Your task to perform on an android device: Show me popular games on the Play Store Image 0: 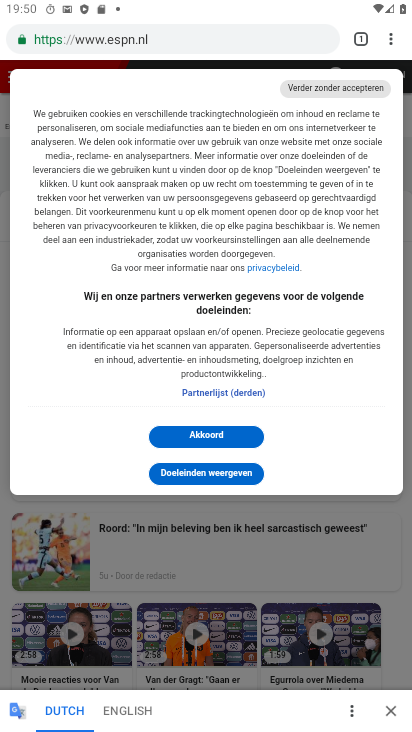
Step 0: press home button
Your task to perform on an android device: Show me popular games on the Play Store Image 1: 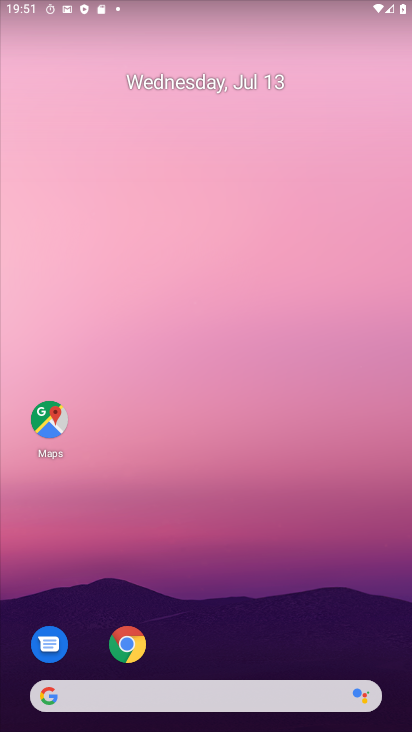
Step 1: drag from (277, 634) to (305, 79)
Your task to perform on an android device: Show me popular games on the Play Store Image 2: 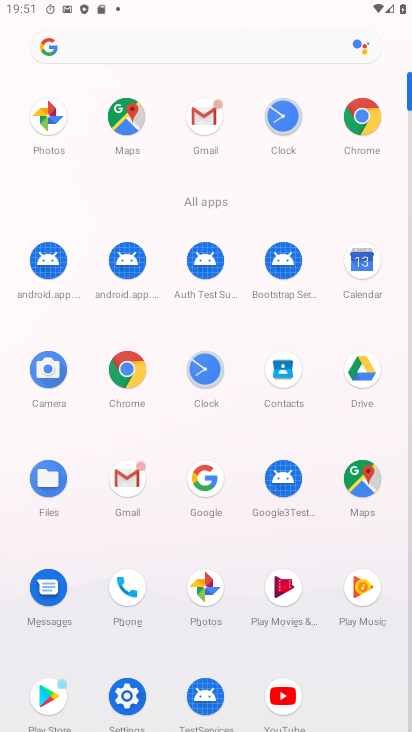
Step 2: click (47, 693)
Your task to perform on an android device: Show me popular games on the Play Store Image 3: 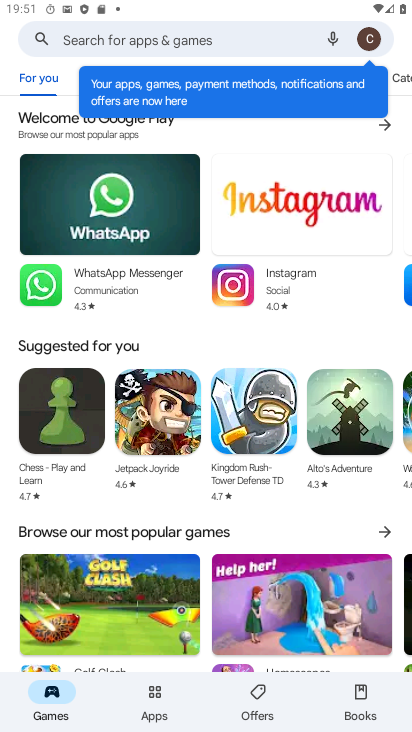
Step 3: click (74, 80)
Your task to perform on an android device: Show me popular games on the Play Store Image 4: 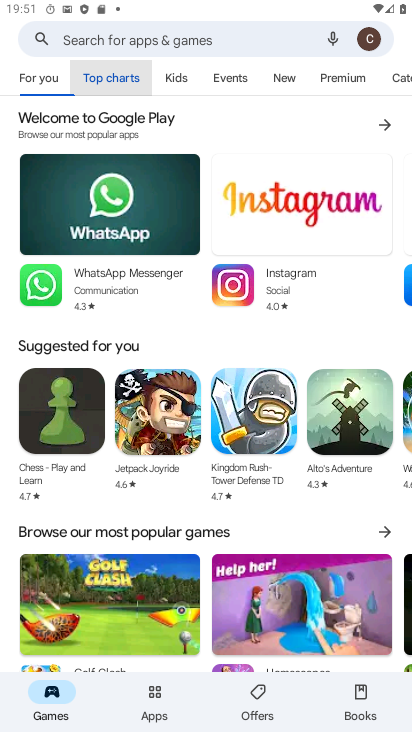
Step 4: click (65, 80)
Your task to perform on an android device: Show me popular games on the Play Store Image 5: 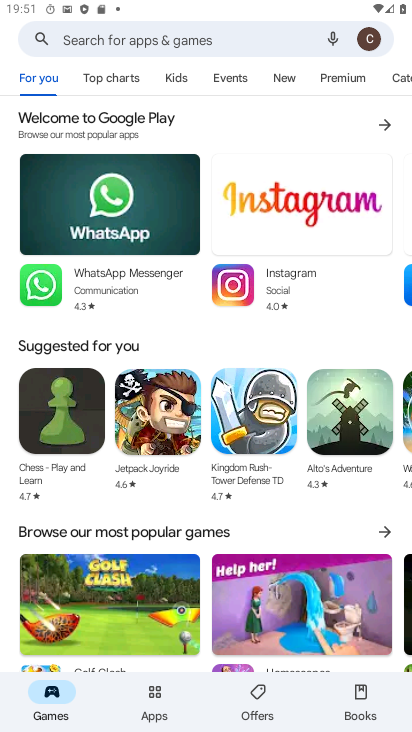
Step 5: click (123, 79)
Your task to perform on an android device: Show me popular games on the Play Store Image 6: 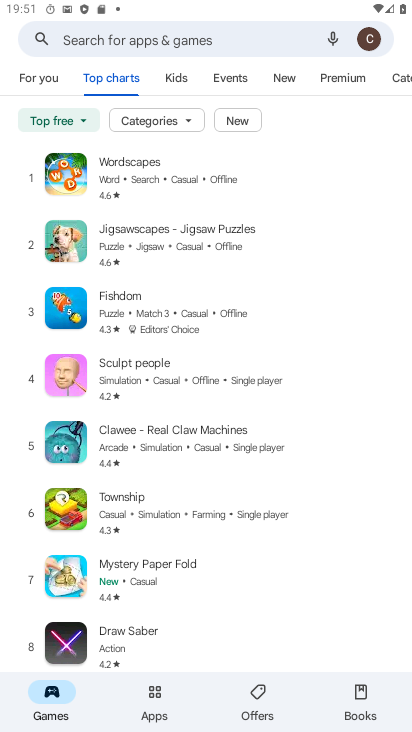
Step 6: task complete